Your task to perform on an android device: Go to CNN.com Image 0: 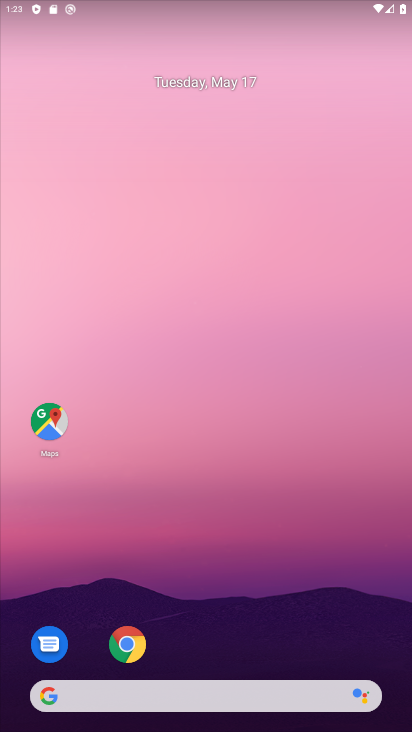
Step 0: click (130, 645)
Your task to perform on an android device: Go to CNN.com Image 1: 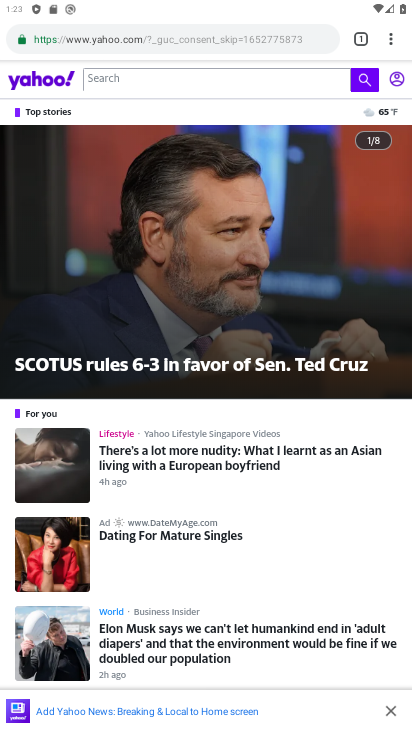
Step 1: click (128, 34)
Your task to perform on an android device: Go to CNN.com Image 2: 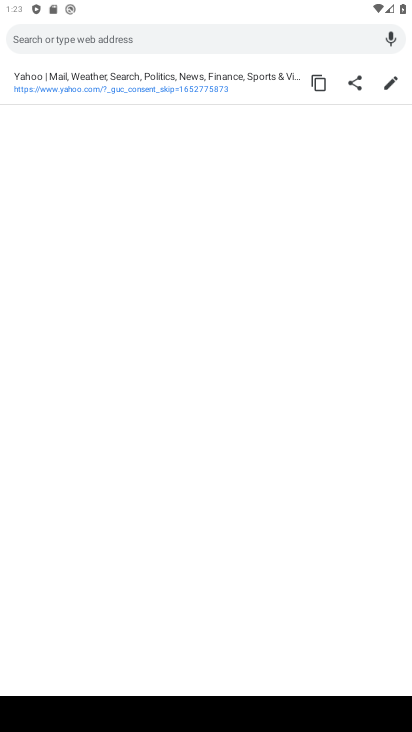
Step 2: type "cnn.com"
Your task to perform on an android device: Go to CNN.com Image 3: 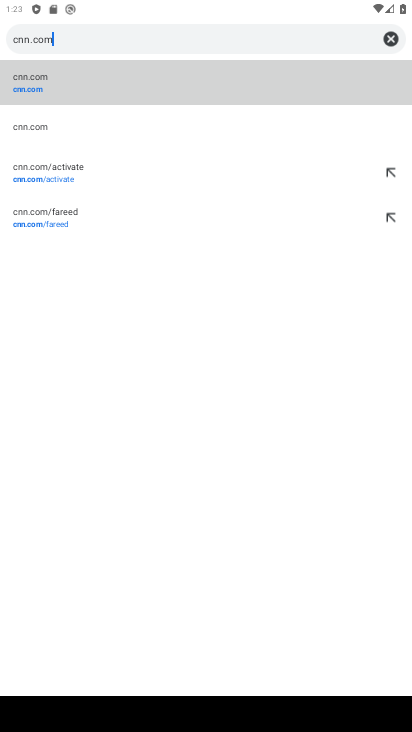
Step 3: click (77, 76)
Your task to perform on an android device: Go to CNN.com Image 4: 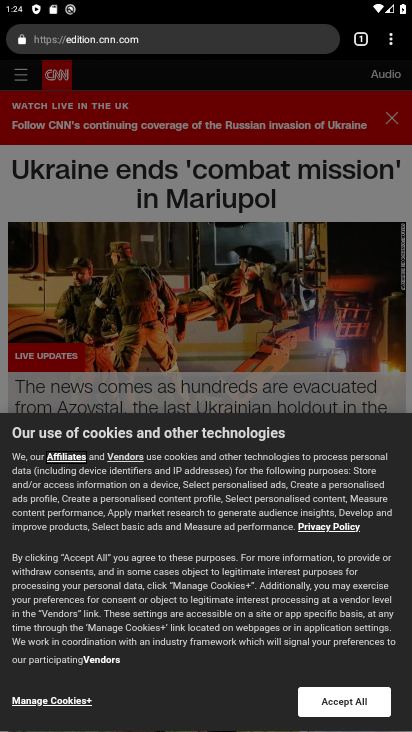
Step 4: task complete